Your task to perform on an android device: turn on notifications settings in the gmail app Image 0: 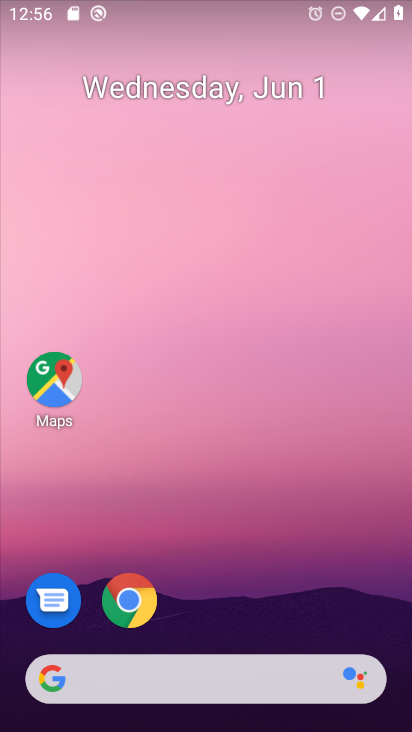
Step 0: drag from (225, 622) to (224, 46)
Your task to perform on an android device: turn on notifications settings in the gmail app Image 1: 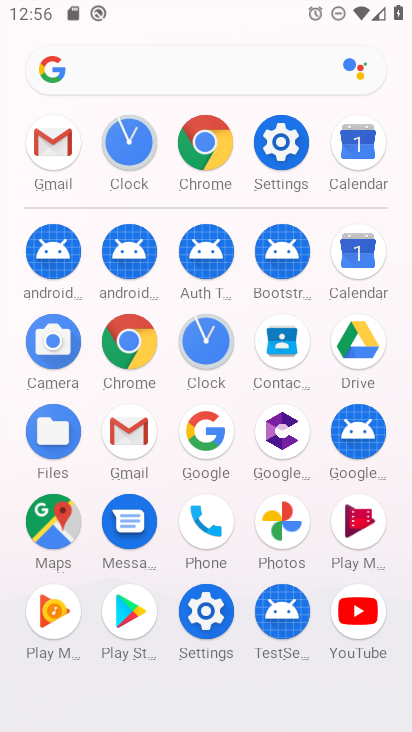
Step 1: click (127, 423)
Your task to perform on an android device: turn on notifications settings in the gmail app Image 2: 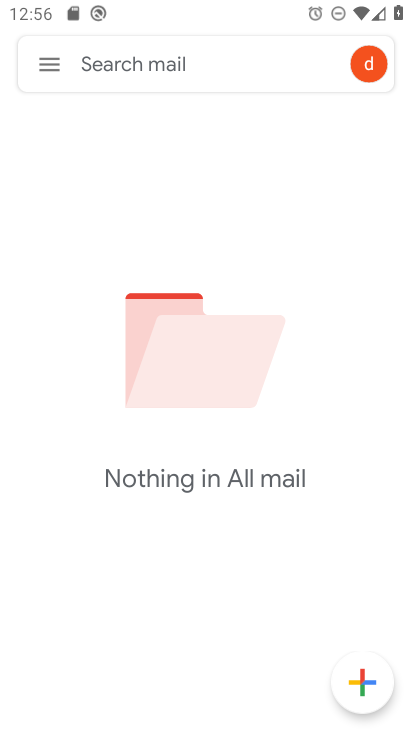
Step 2: click (44, 66)
Your task to perform on an android device: turn on notifications settings in the gmail app Image 3: 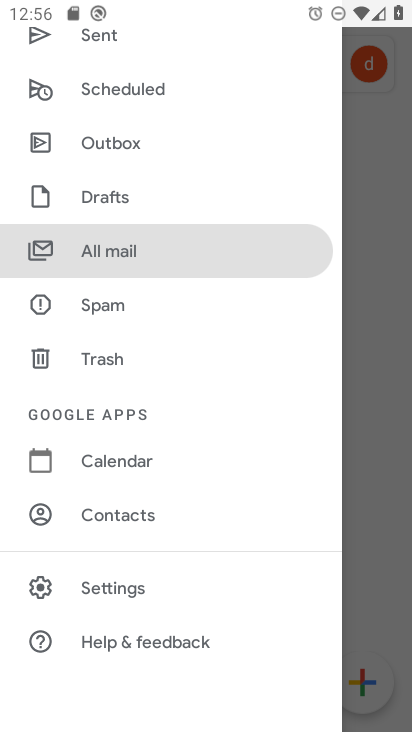
Step 3: click (130, 584)
Your task to perform on an android device: turn on notifications settings in the gmail app Image 4: 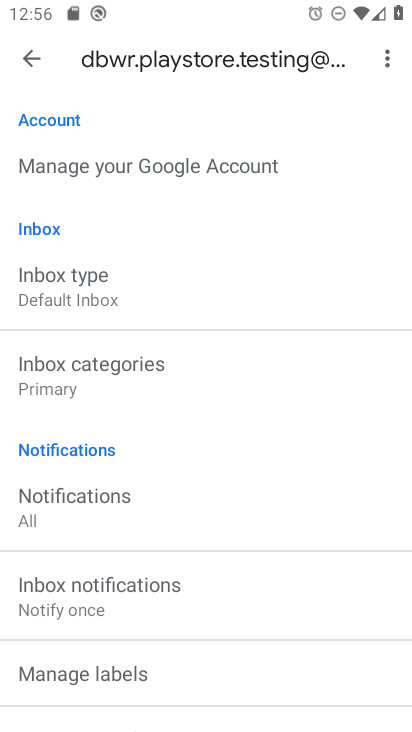
Step 4: click (27, 67)
Your task to perform on an android device: turn on notifications settings in the gmail app Image 5: 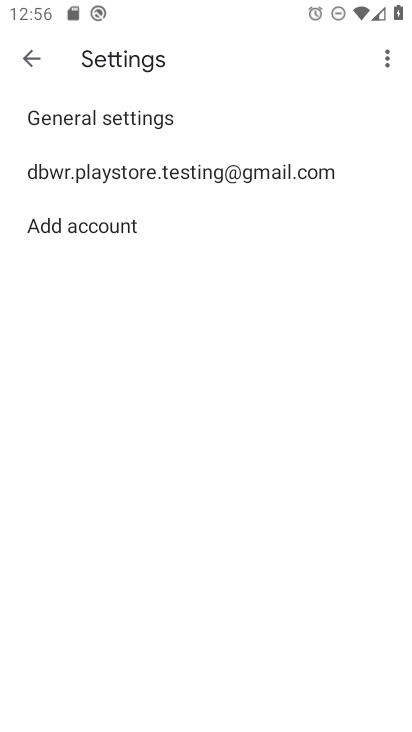
Step 5: click (113, 122)
Your task to perform on an android device: turn on notifications settings in the gmail app Image 6: 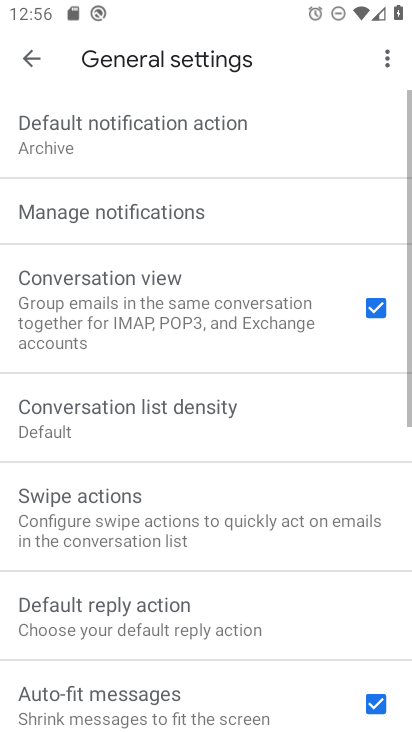
Step 6: click (140, 213)
Your task to perform on an android device: turn on notifications settings in the gmail app Image 7: 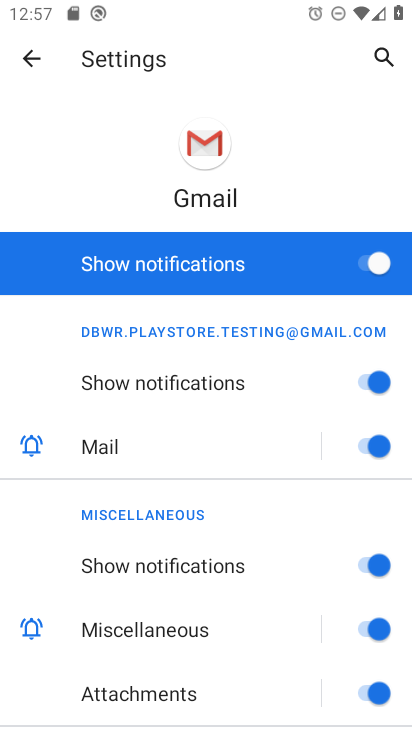
Step 7: task complete